Your task to perform on an android device: toggle notifications settings in the gmail app Image 0: 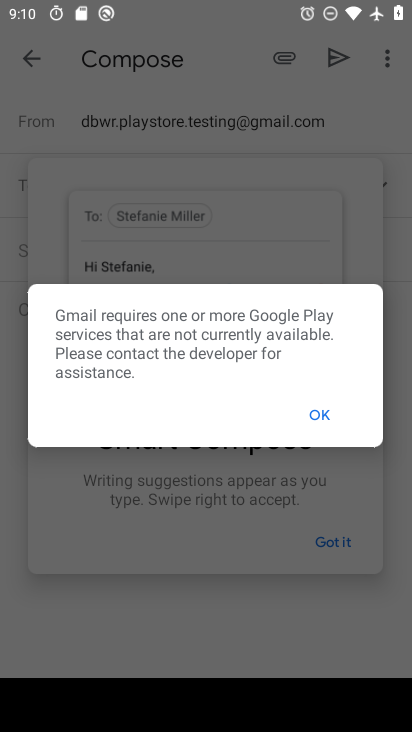
Step 0: press home button
Your task to perform on an android device: toggle notifications settings in the gmail app Image 1: 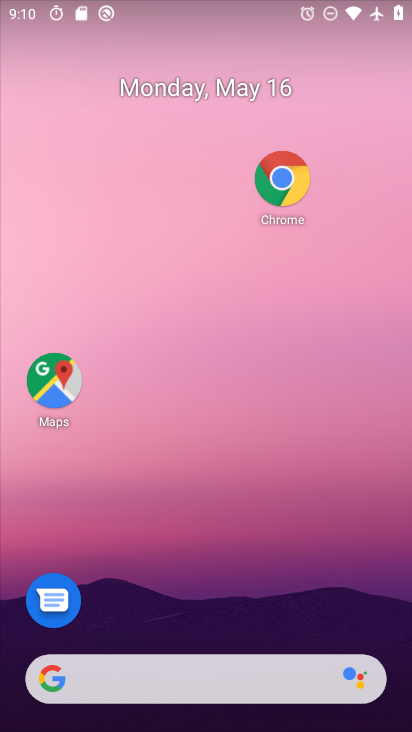
Step 1: drag from (215, 688) to (284, 221)
Your task to perform on an android device: toggle notifications settings in the gmail app Image 2: 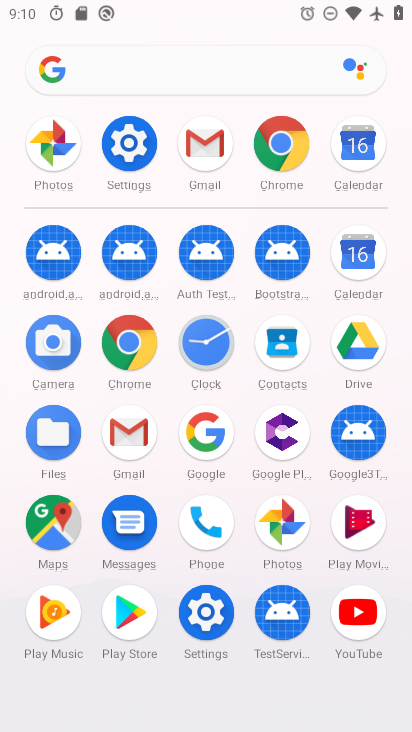
Step 2: click (209, 162)
Your task to perform on an android device: toggle notifications settings in the gmail app Image 3: 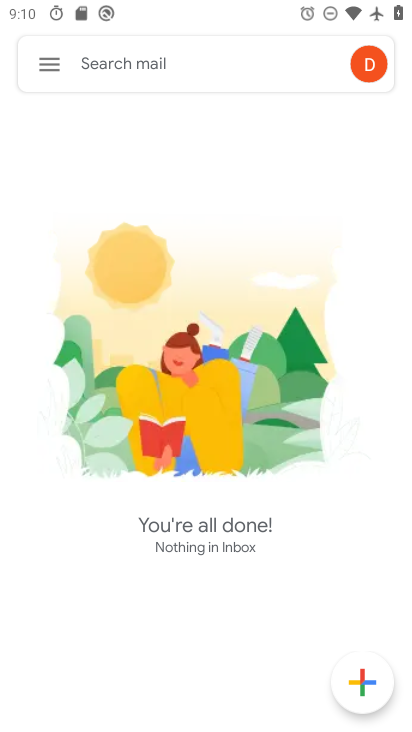
Step 3: click (43, 58)
Your task to perform on an android device: toggle notifications settings in the gmail app Image 4: 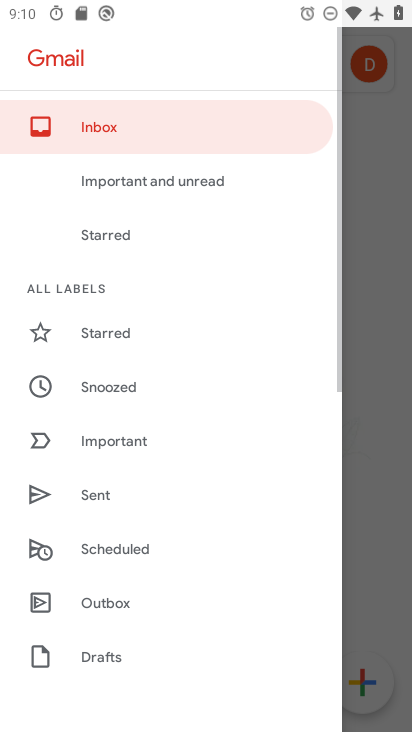
Step 4: drag from (188, 639) to (310, 44)
Your task to perform on an android device: toggle notifications settings in the gmail app Image 5: 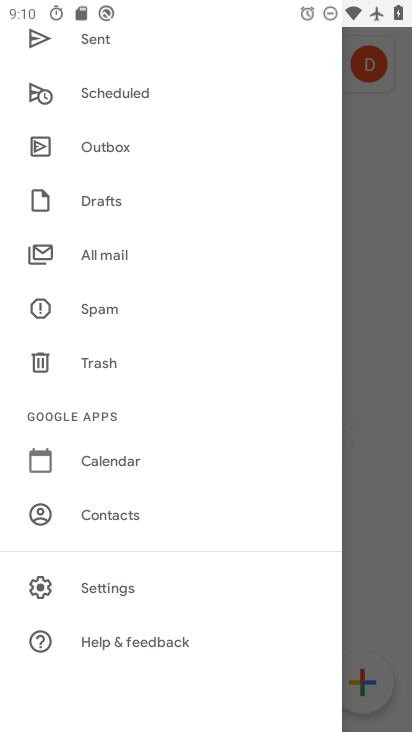
Step 5: click (104, 595)
Your task to perform on an android device: toggle notifications settings in the gmail app Image 6: 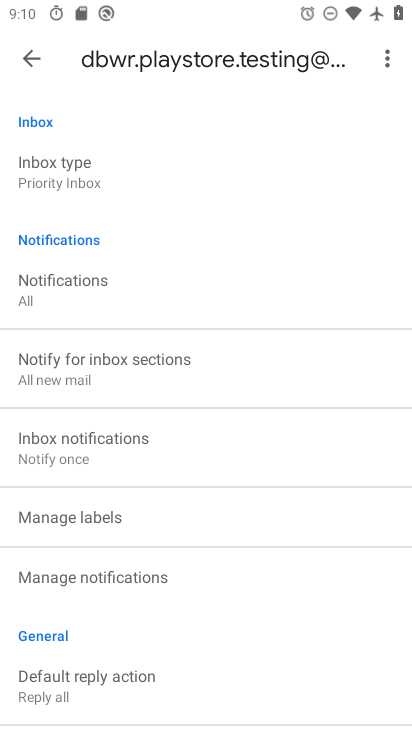
Step 6: click (75, 299)
Your task to perform on an android device: toggle notifications settings in the gmail app Image 7: 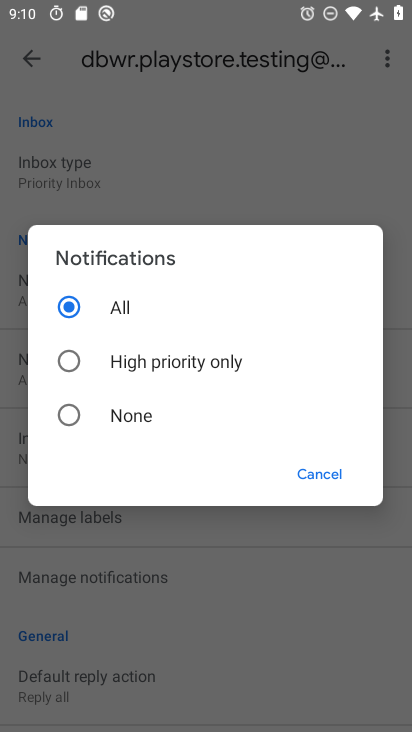
Step 7: click (79, 420)
Your task to perform on an android device: toggle notifications settings in the gmail app Image 8: 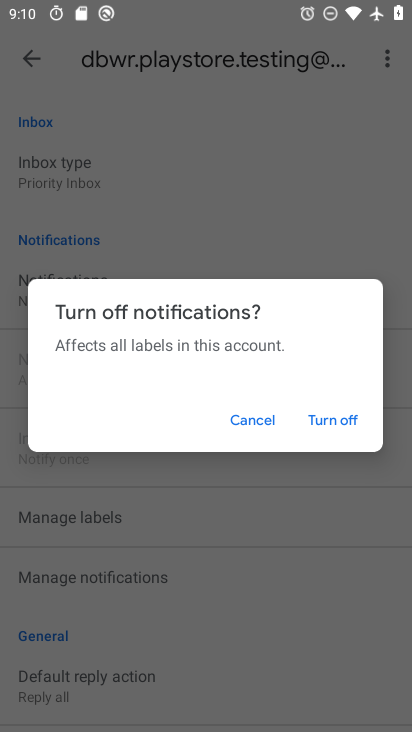
Step 8: click (313, 424)
Your task to perform on an android device: toggle notifications settings in the gmail app Image 9: 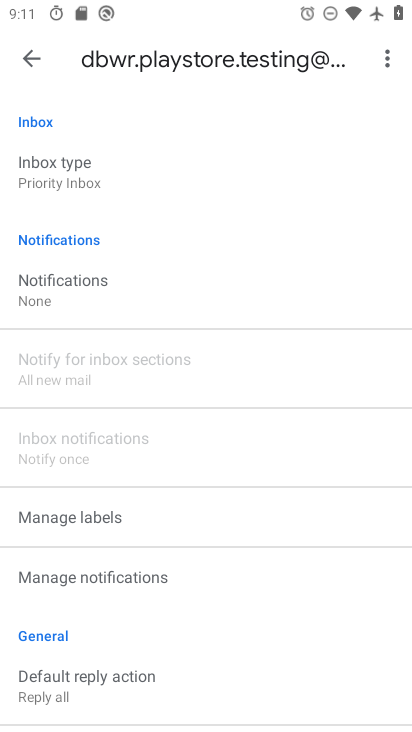
Step 9: task complete